Your task to perform on an android device: turn off improve location accuracy Image 0: 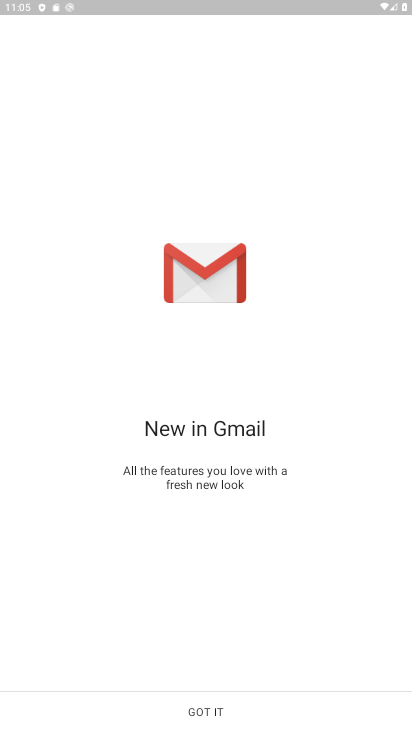
Step 0: press home button
Your task to perform on an android device: turn off improve location accuracy Image 1: 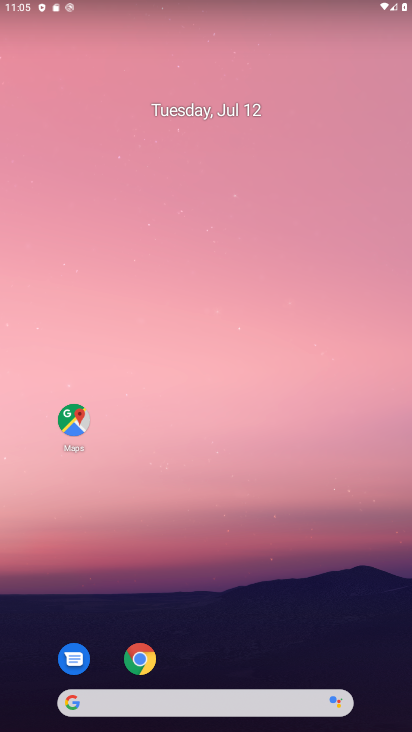
Step 1: drag from (293, 670) to (366, 96)
Your task to perform on an android device: turn off improve location accuracy Image 2: 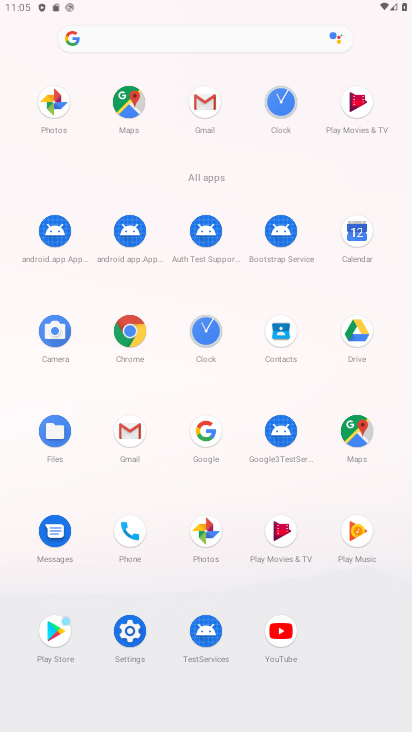
Step 2: click (134, 635)
Your task to perform on an android device: turn off improve location accuracy Image 3: 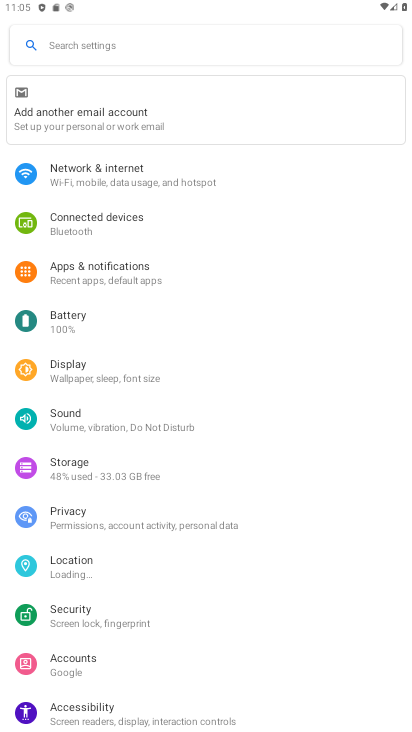
Step 3: click (94, 564)
Your task to perform on an android device: turn off improve location accuracy Image 4: 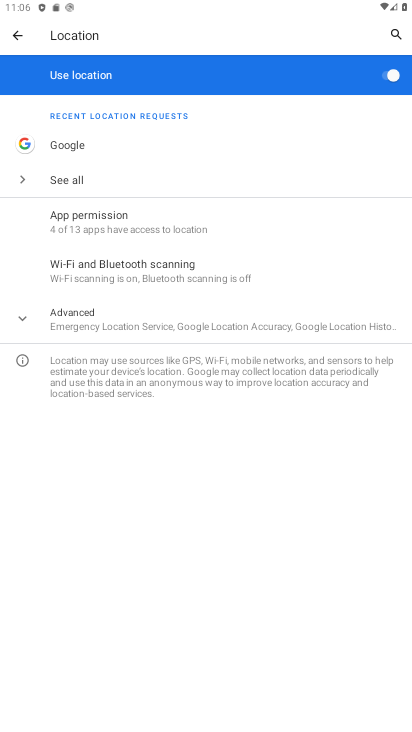
Step 4: click (168, 330)
Your task to perform on an android device: turn off improve location accuracy Image 5: 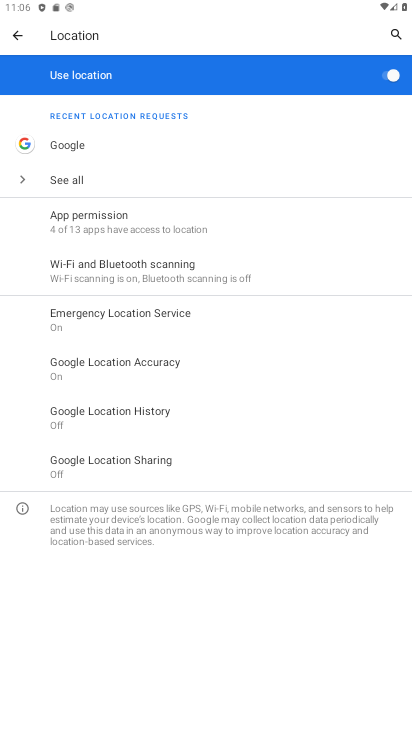
Step 5: click (168, 357)
Your task to perform on an android device: turn off improve location accuracy Image 6: 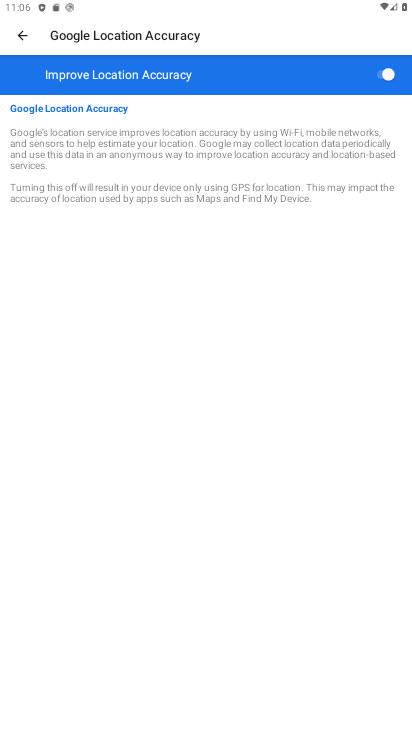
Step 6: click (387, 76)
Your task to perform on an android device: turn off improve location accuracy Image 7: 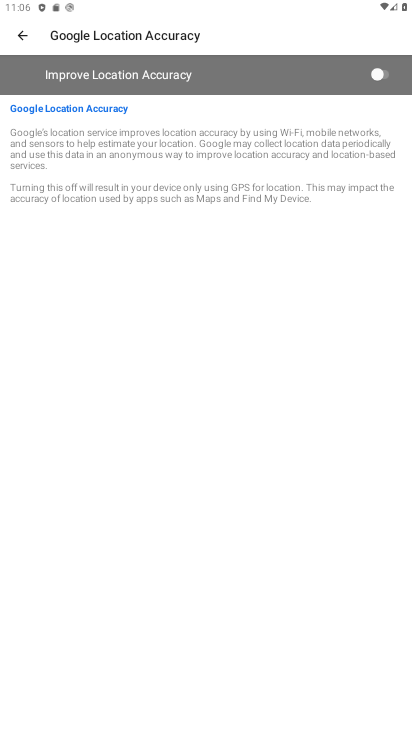
Step 7: task complete